Your task to perform on an android device: Search for pizza restaurants on Maps Image 0: 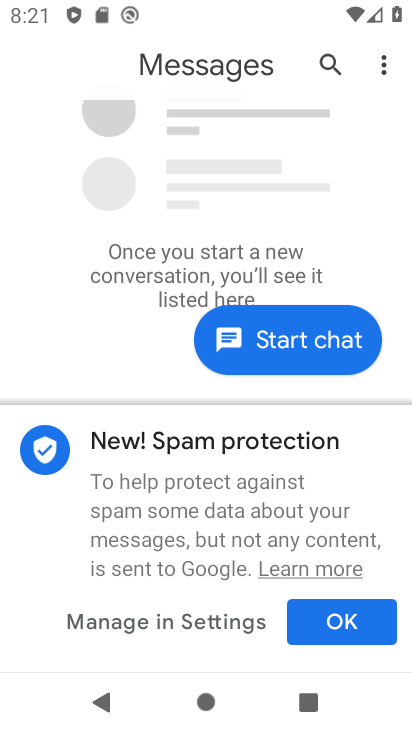
Step 0: press home button
Your task to perform on an android device: Search for pizza restaurants on Maps Image 1: 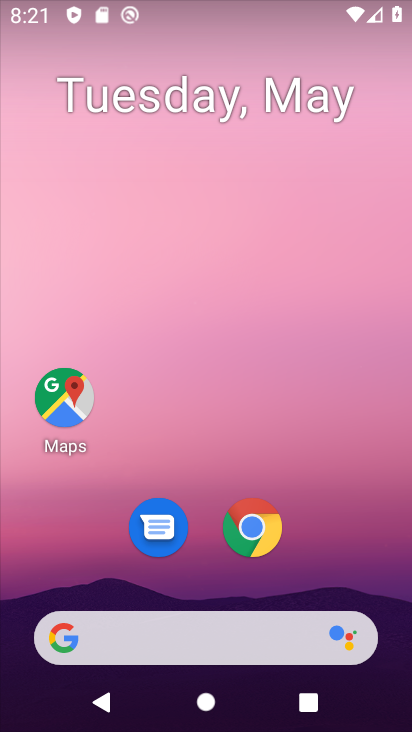
Step 1: click (59, 394)
Your task to perform on an android device: Search for pizza restaurants on Maps Image 2: 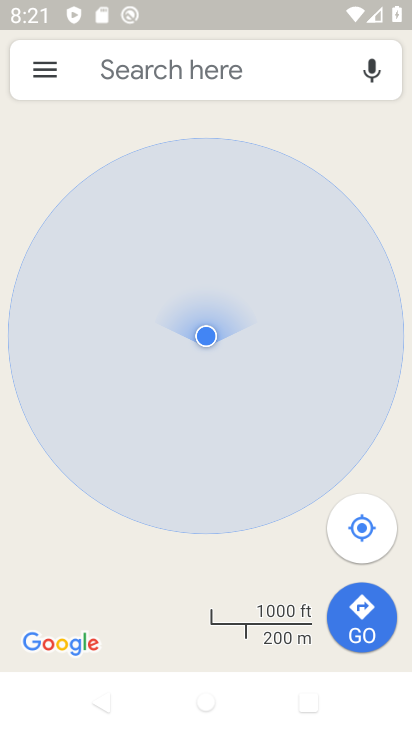
Step 2: click (234, 78)
Your task to perform on an android device: Search for pizza restaurants on Maps Image 3: 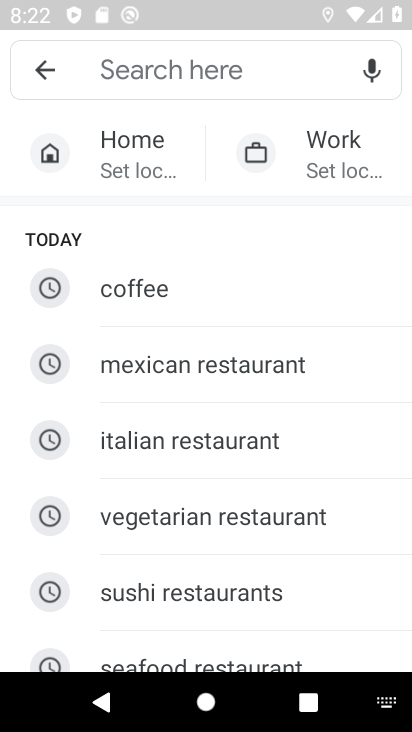
Step 3: type "pizza restaurants"
Your task to perform on an android device: Search for pizza restaurants on Maps Image 4: 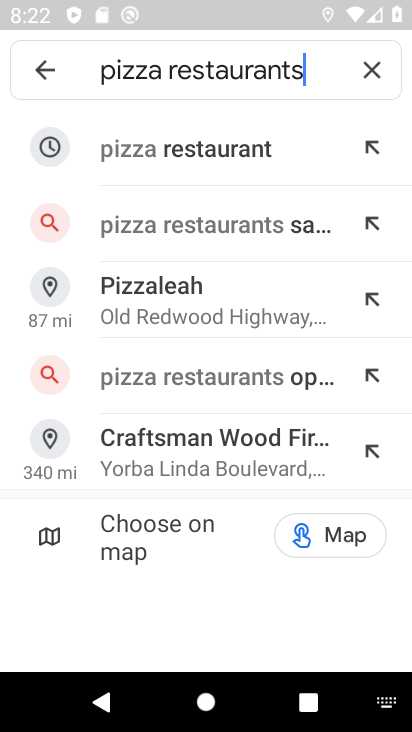
Step 4: click (191, 158)
Your task to perform on an android device: Search for pizza restaurants on Maps Image 5: 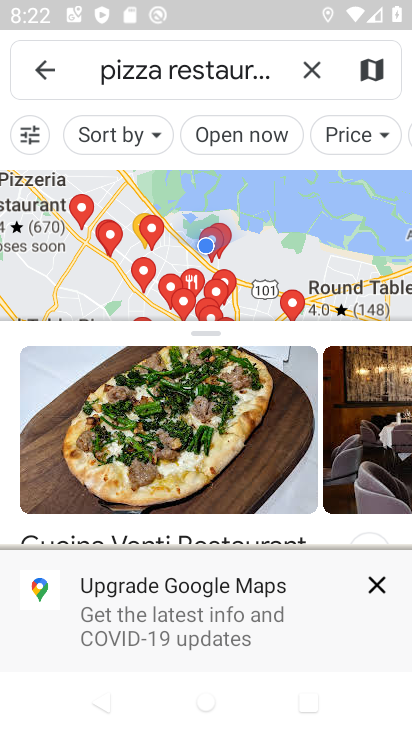
Step 5: click (388, 589)
Your task to perform on an android device: Search for pizza restaurants on Maps Image 6: 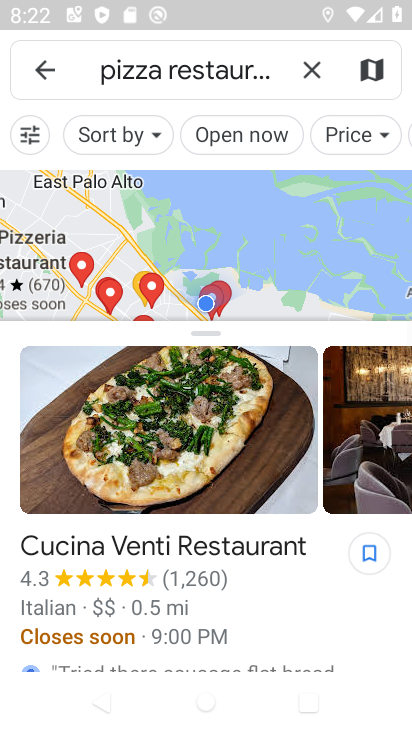
Step 6: task complete